Your task to perform on an android device: make emails show in primary in the gmail app Image 0: 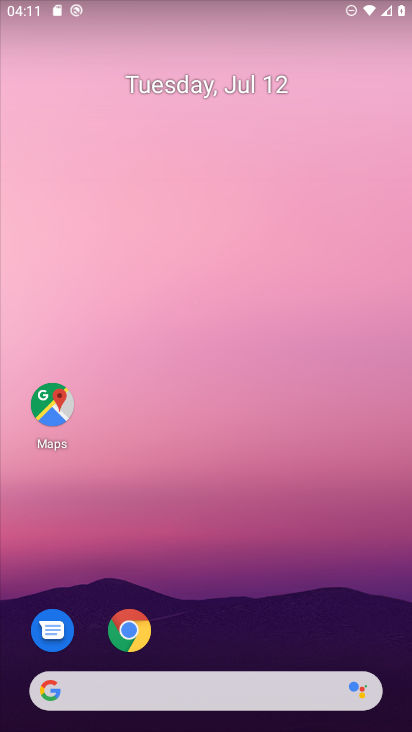
Step 0: drag from (386, 658) to (344, 190)
Your task to perform on an android device: make emails show in primary in the gmail app Image 1: 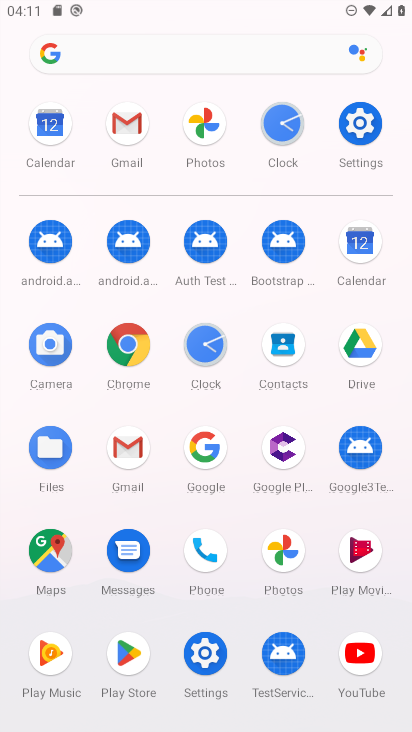
Step 1: click (127, 447)
Your task to perform on an android device: make emails show in primary in the gmail app Image 2: 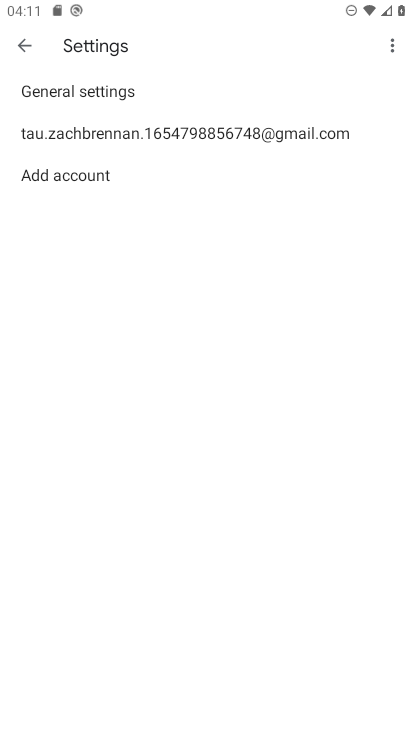
Step 2: click (116, 130)
Your task to perform on an android device: make emails show in primary in the gmail app Image 3: 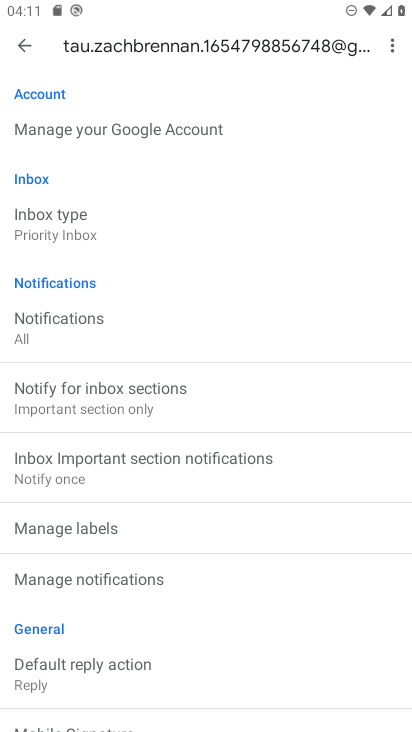
Step 3: click (46, 224)
Your task to perform on an android device: make emails show in primary in the gmail app Image 4: 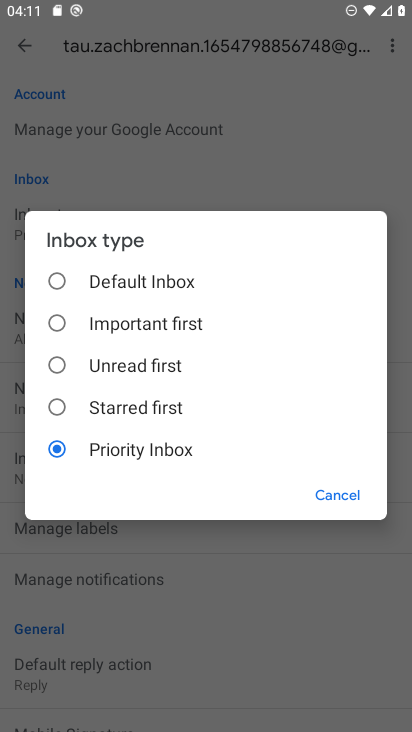
Step 4: click (54, 281)
Your task to perform on an android device: make emails show in primary in the gmail app Image 5: 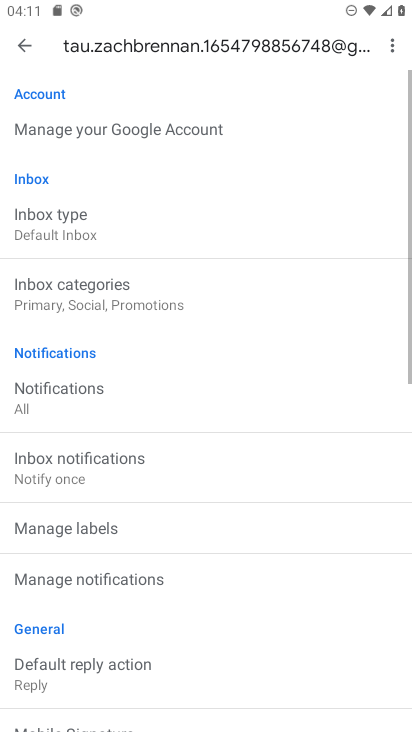
Step 5: click (56, 297)
Your task to perform on an android device: make emails show in primary in the gmail app Image 6: 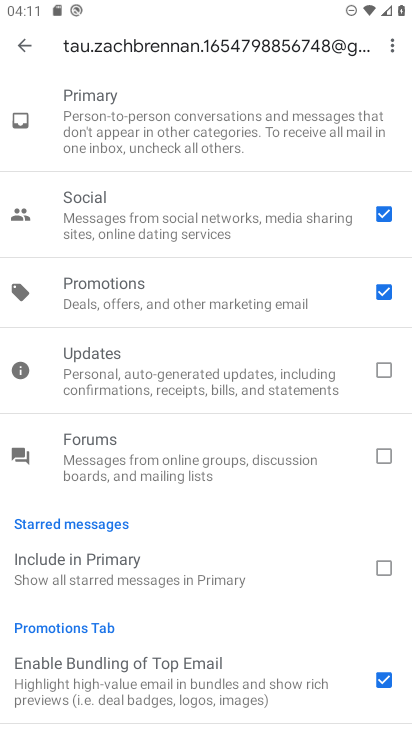
Step 6: click (377, 212)
Your task to perform on an android device: make emails show in primary in the gmail app Image 7: 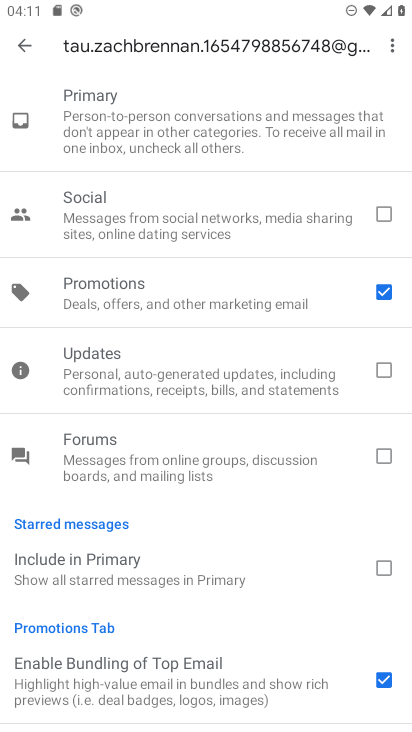
Step 7: click (383, 290)
Your task to perform on an android device: make emails show in primary in the gmail app Image 8: 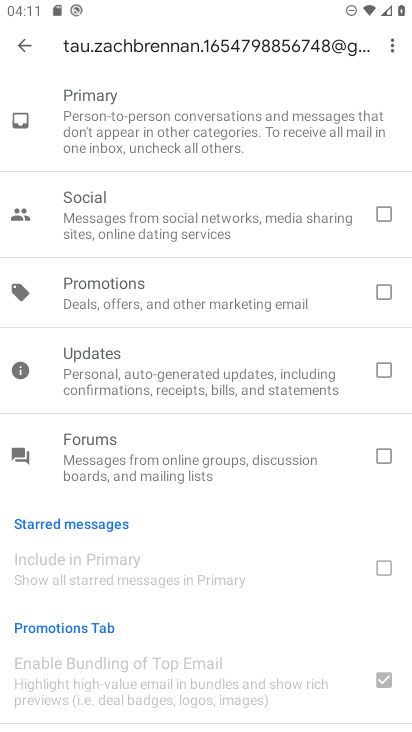
Step 8: task complete